Your task to perform on an android device: turn off picture-in-picture Image 0: 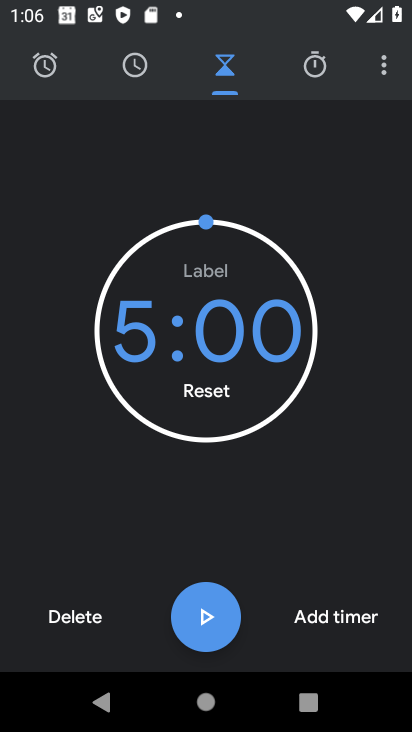
Step 0: press home button
Your task to perform on an android device: turn off picture-in-picture Image 1: 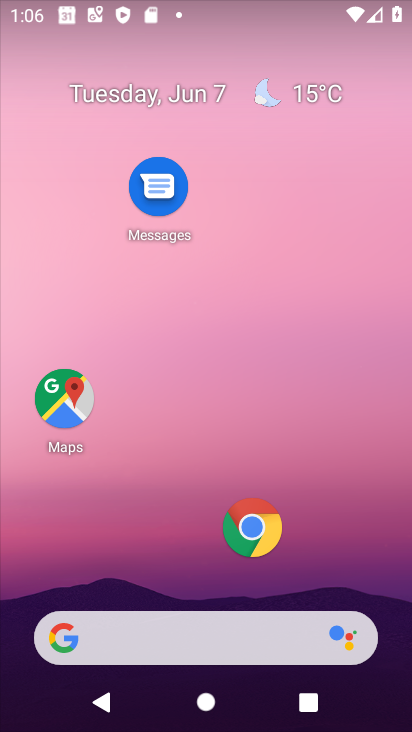
Step 1: click (242, 534)
Your task to perform on an android device: turn off picture-in-picture Image 2: 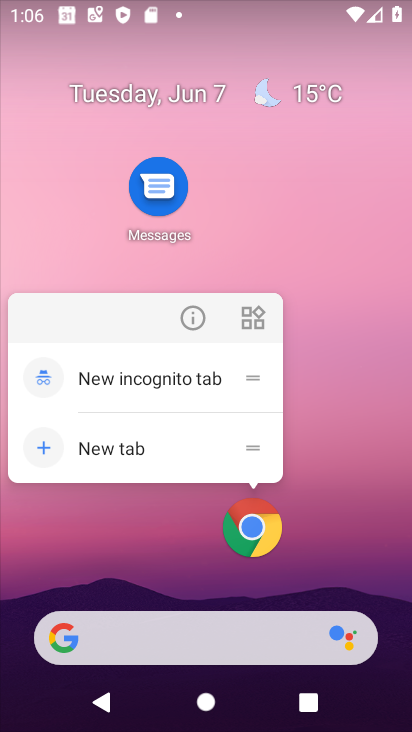
Step 2: click (193, 319)
Your task to perform on an android device: turn off picture-in-picture Image 3: 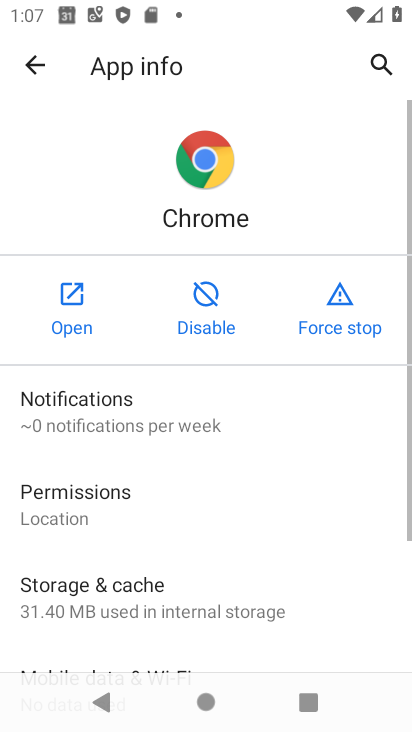
Step 3: drag from (132, 637) to (154, 254)
Your task to perform on an android device: turn off picture-in-picture Image 4: 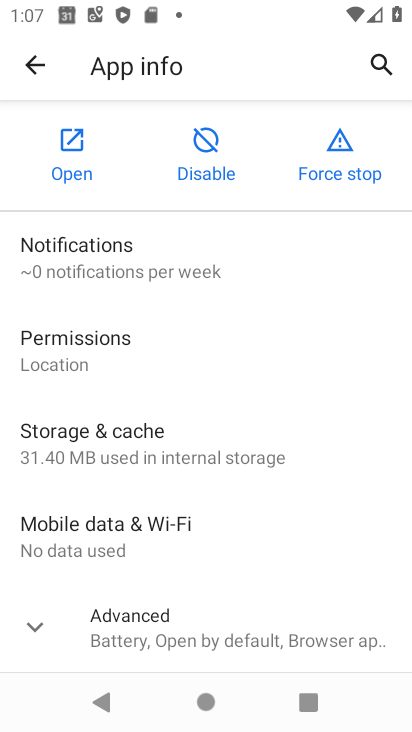
Step 4: click (79, 638)
Your task to perform on an android device: turn off picture-in-picture Image 5: 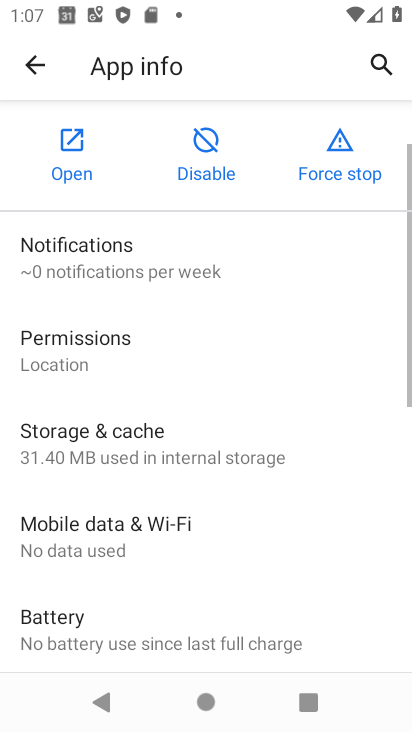
Step 5: drag from (248, 648) to (248, 281)
Your task to perform on an android device: turn off picture-in-picture Image 6: 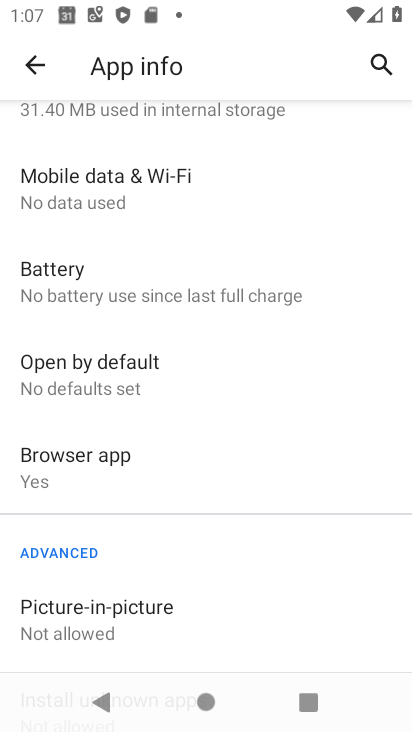
Step 6: click (84, 626)
Your task to perform on an android device: turn off picture-in-picture Image 7: 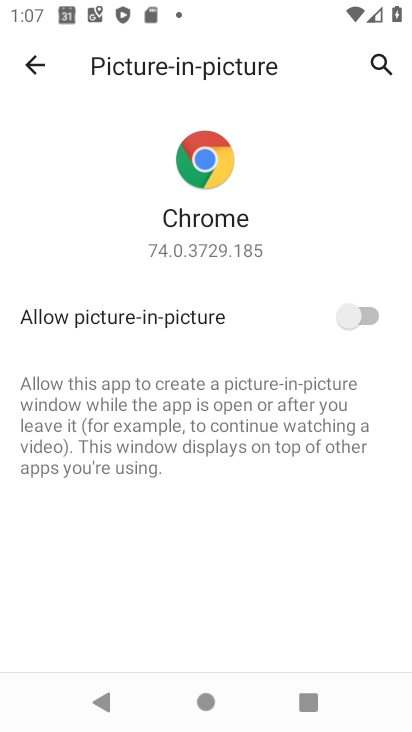
Step 7: click (362, 313)
Your task to perform on an android device: turn off picture-in-picture Image 8: 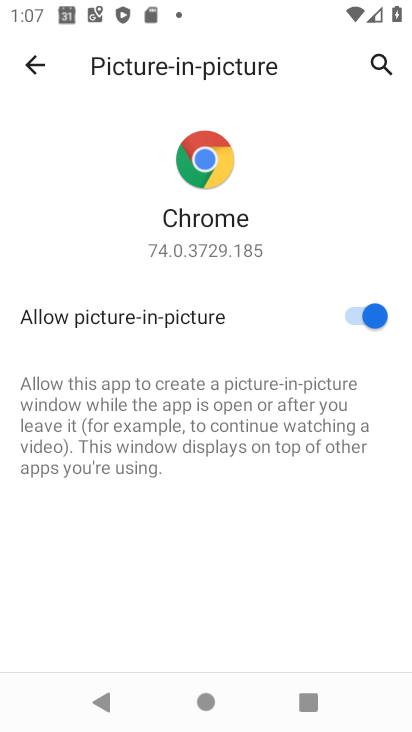
Step 8: task complete